Your task to perform on an android device: star an email in the gmail app Image 0: 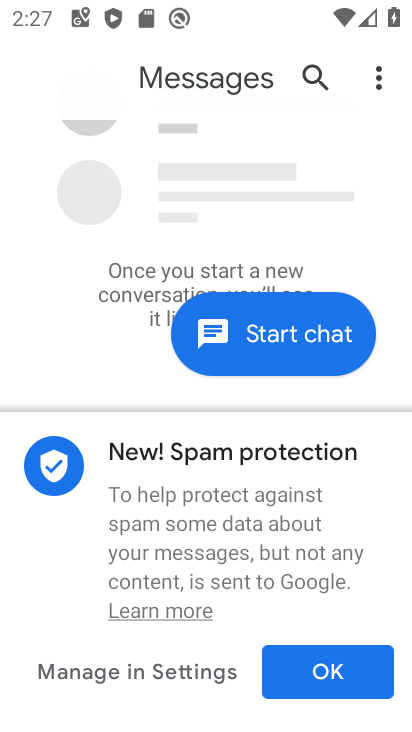
Step 0: press home button
Your task to perform on an android device: star an email in the gmail app Image 1: 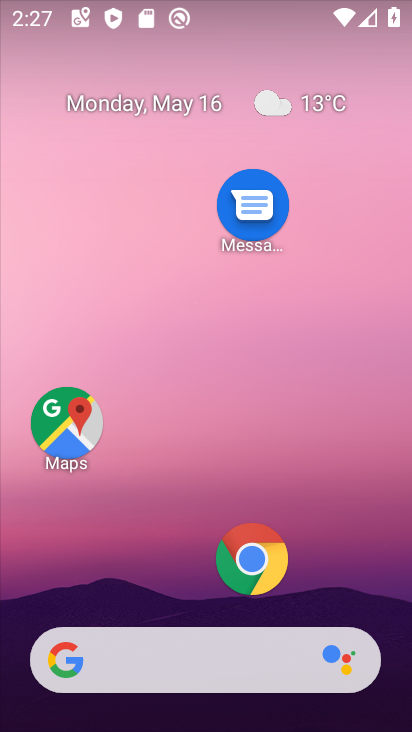
Step 1: drag from (172, 583) to (168, 124)
Your task to perform on an android device: star an email in the gmail app Image 2: 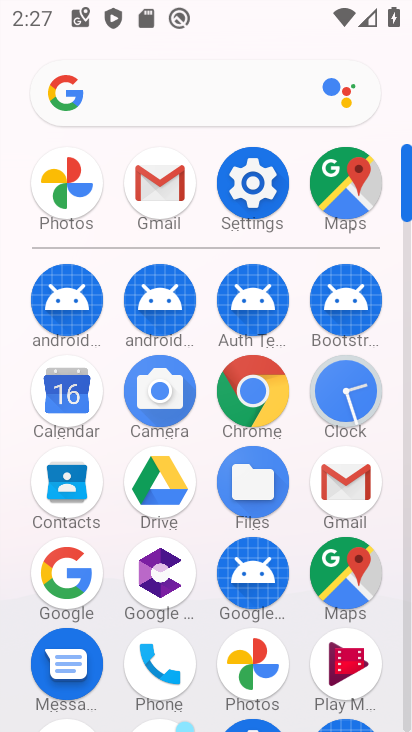
Step 2: click (359, 478)
Your task to perform on an android device: star an email in the gmail app Image 3: 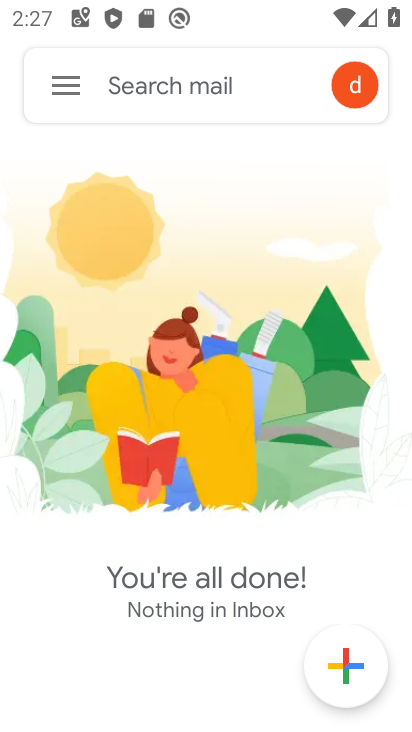
Step 3: click (60, 82)
Your task to perform on an android device: star an email in the gmail app Image 4: 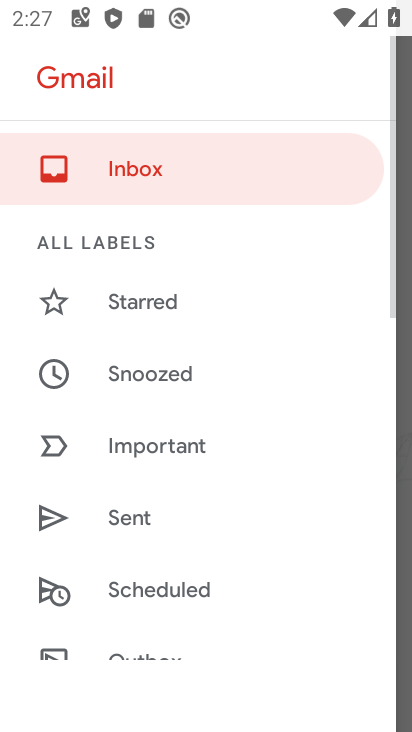
Step 4: drag from (164, 614) to (174, 246)
Your task to perform on an android device: star an email in the gmail app Image 5: 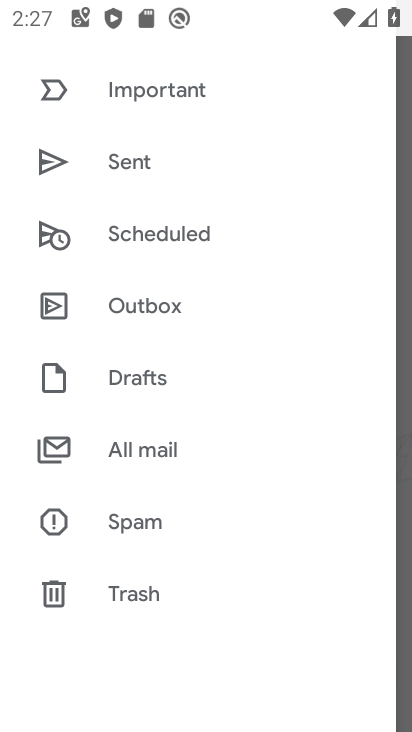
Step 5: click (131, 453)
Your task to perform on an android device: star an email in the gmail app Image 6: 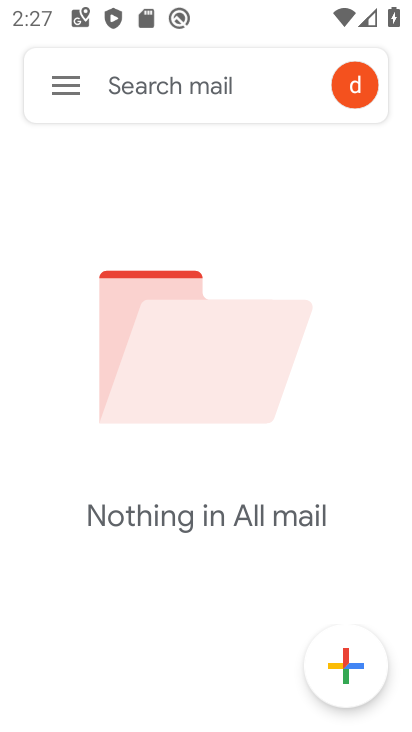
Step 6: task complete